Your task to perform on an android device: Turn off the flashlight Image 0: 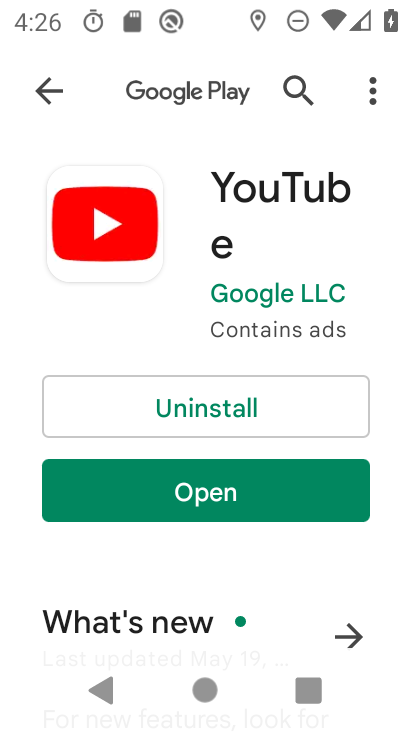
Step 0: press home button
Your task to perform on an android device: Turn off the flashlight Image 1: 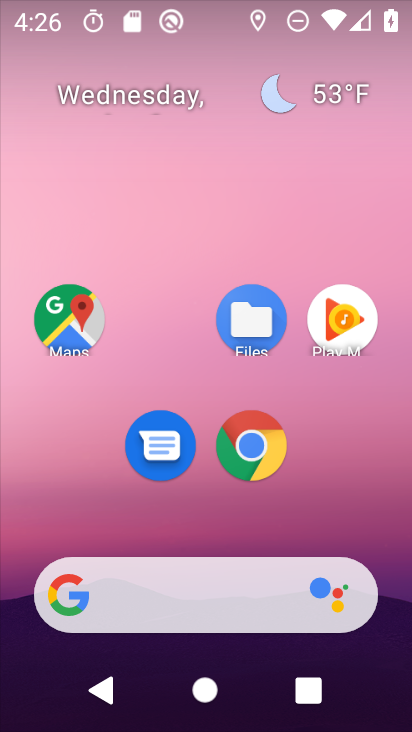
Step 1: drag from (321, 456) to (305, 97)
Your task to perform on an android device: Turn off the flashlight Image 2: 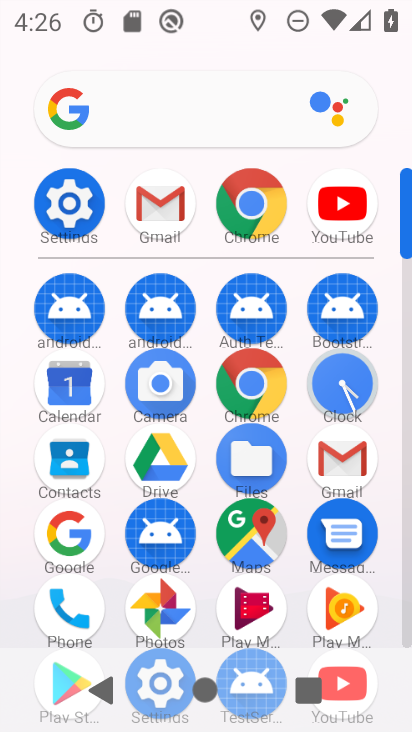
Step 2: click (51, 201)
Your task to perform on an android device: Turn off the flashlight Image 3: 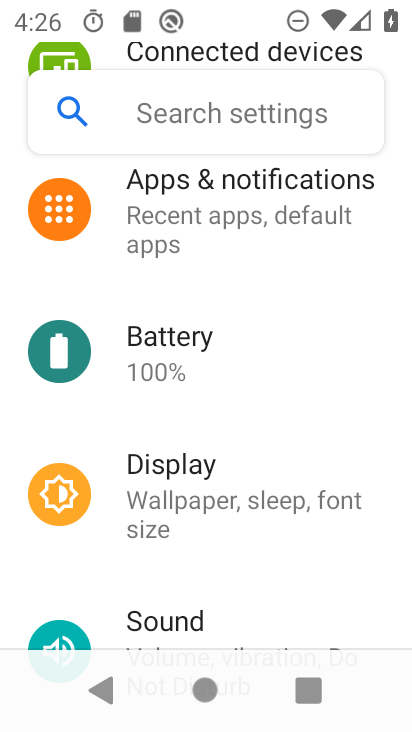
Step 3: click (190, 500)
Your task to perform on an android device: Turn off the flashlight Image 4: 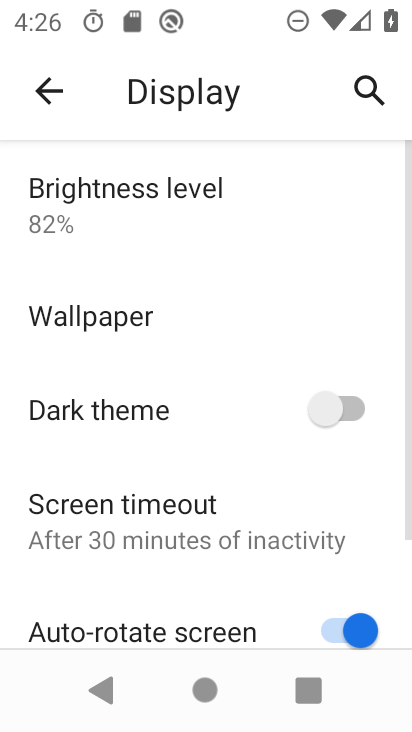
Step 4: drag from (165, 520) to (175, 273)
Your task to perform on an android device: Turn off the flashlight Image 5: 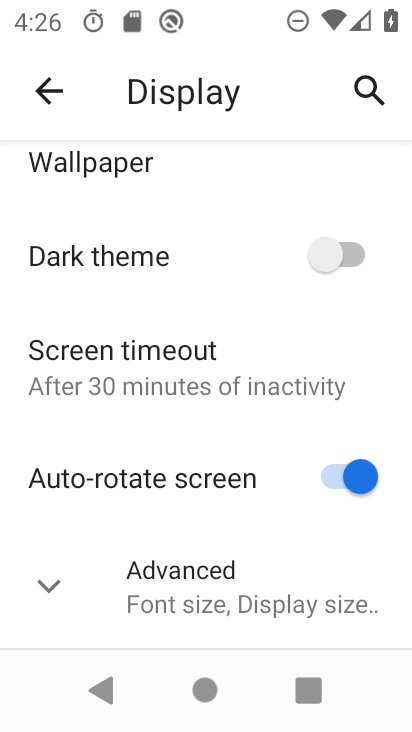
Step 5: click (218, 577)
Your task to perform on an android device: Turn off the flashlight Image 6: 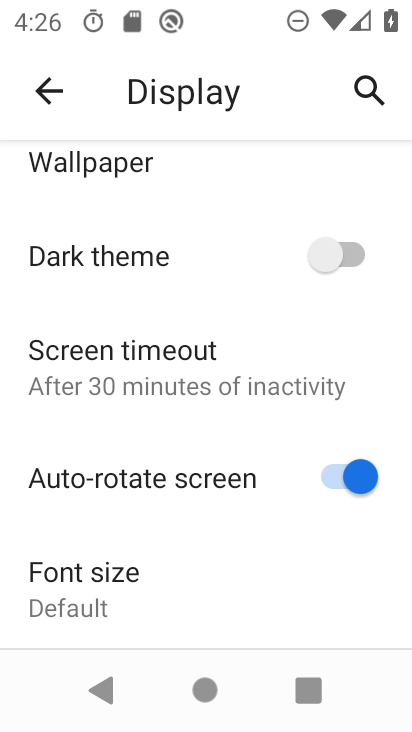
Step 6: task complete